Your task to perform on an android device: When is my next appointment? Image 0: 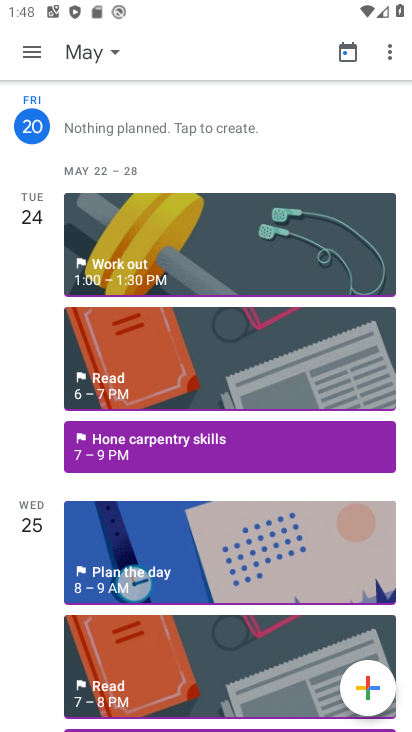
Step 0: drag from (224, 217) to (217, 514)
Your task to perform on an android device: When is my next appointment? Image 1: 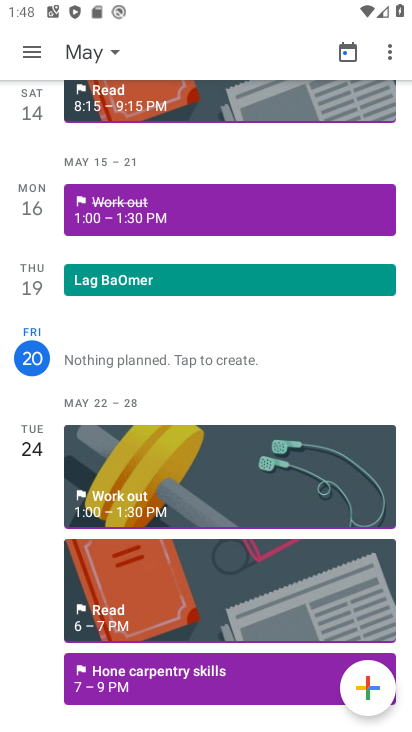
Step 1: task complete